Your task to perform on an android device: Go to privacy settings Image 0: 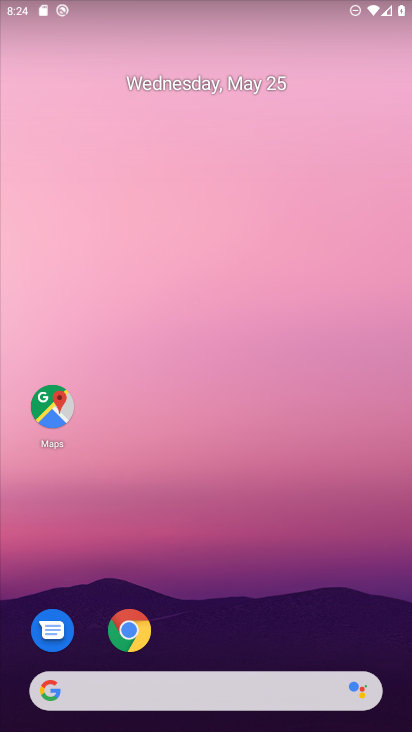
Step 0: click (132, 631)
Your task to perform on an android device: Go to privacy settings Image 1: 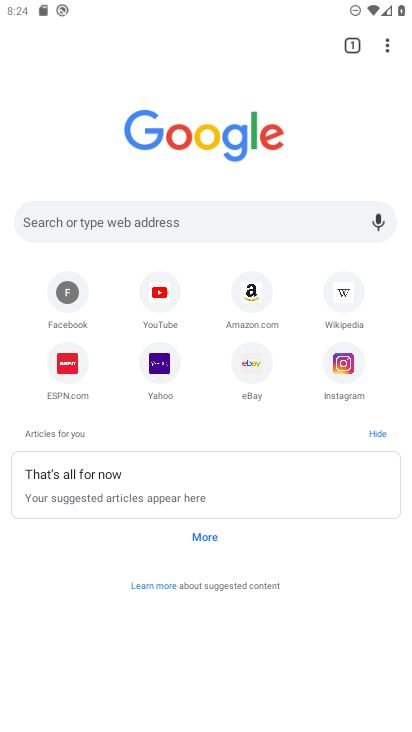
Step 1: click (382, 47)
Your task to perform on an android device: Go to privacy settings Image 2: 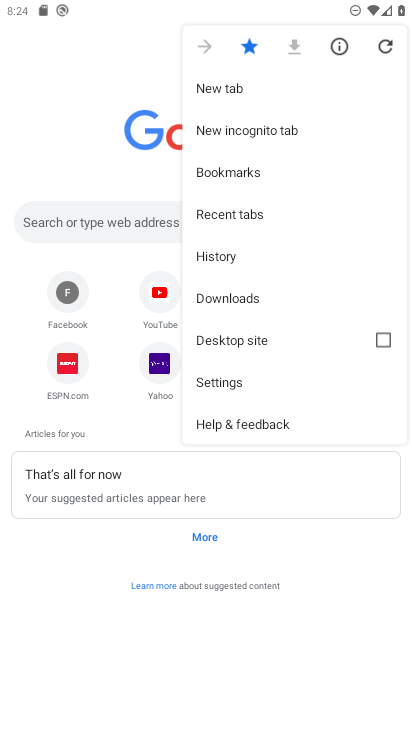
Step 2: click (219, 379)
Your task to perform on an android device: Go to privacy settings Image 3: 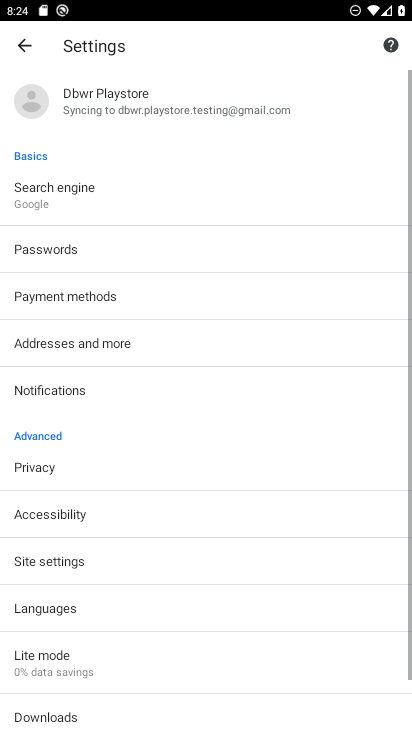
Step 3: click (94, 464)
Your task to perform on an android device: Go to privacy settings Image 4: 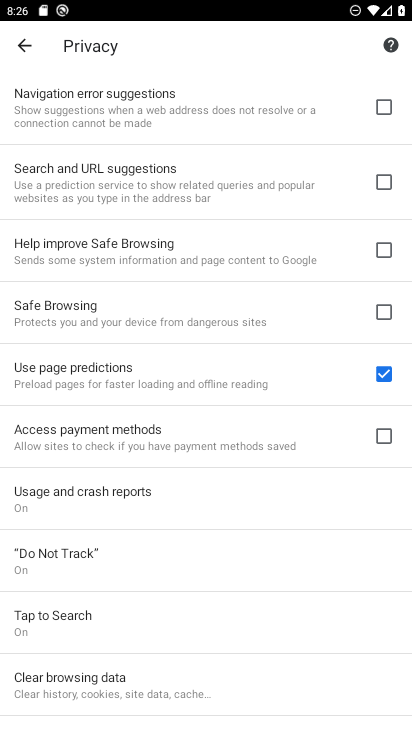
Step 4: task complete